Your task to perform on an android device: Show me popular games on the Play Store Image 0: 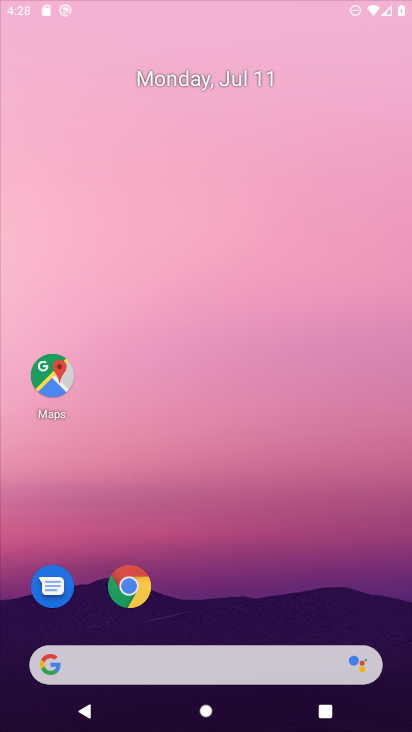
Step 0: press home button
Your task to perform on an android device: Show me popular games on the Play Store Image 1: 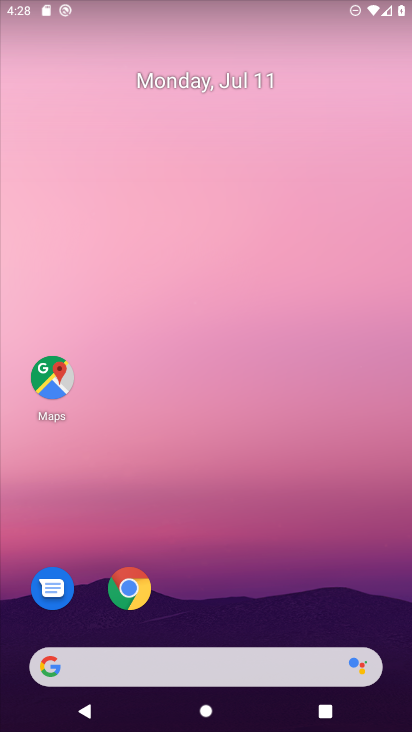
Step 1: drag from (293, 617) to (302, 111)
Your task to perform on an android device: Show me popular games on the Play Store Image 2: 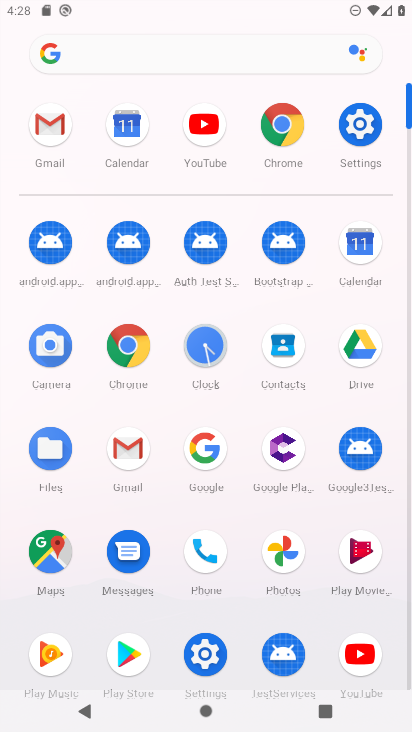
Step 2: click (125, 657)
Your task to perform on an android device: Show me popular games on the Play Store Image 3: 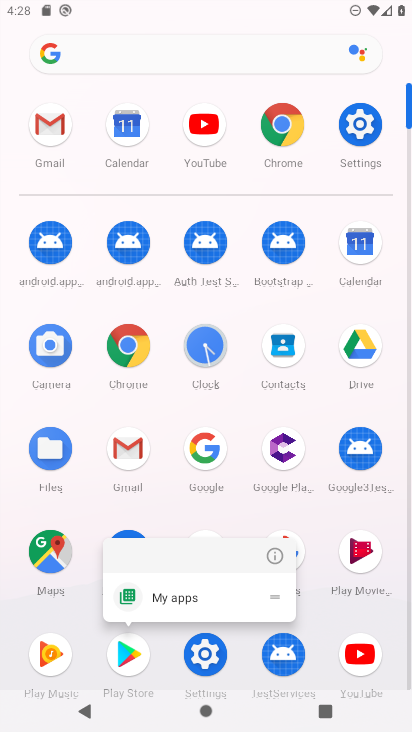
Step 3: click (126, 654)
Your task to perform on an android device: Show me popular games on the Play Store Image 4: 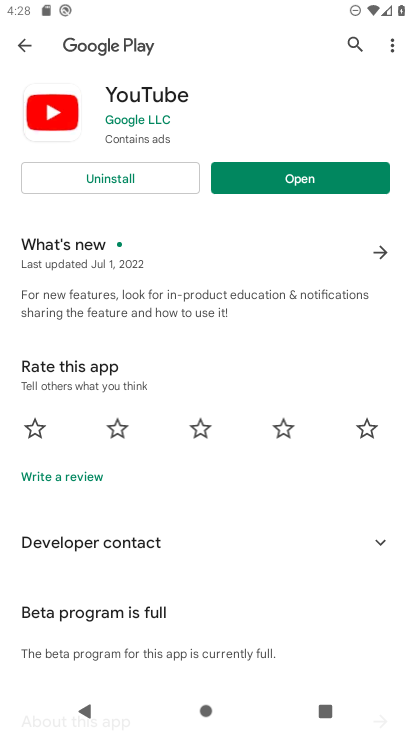
Step 4: press back button
Your task to perform on an android device: Show me popular games on the Play Store Image 5: 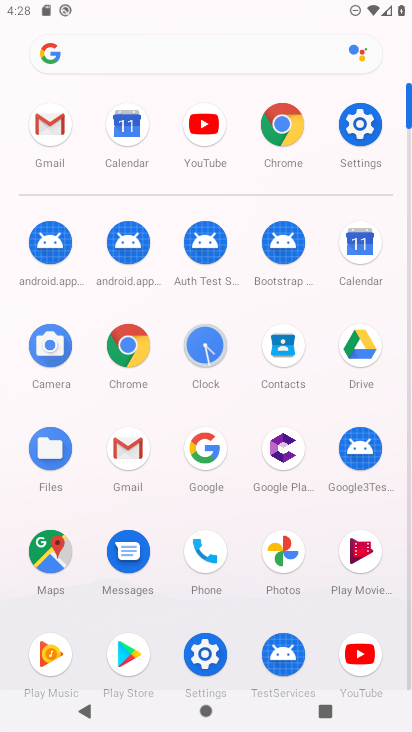
Step 5: click (118, 659)
Your task to perform on an android device: Show me popular games on the Play Store Image 6: 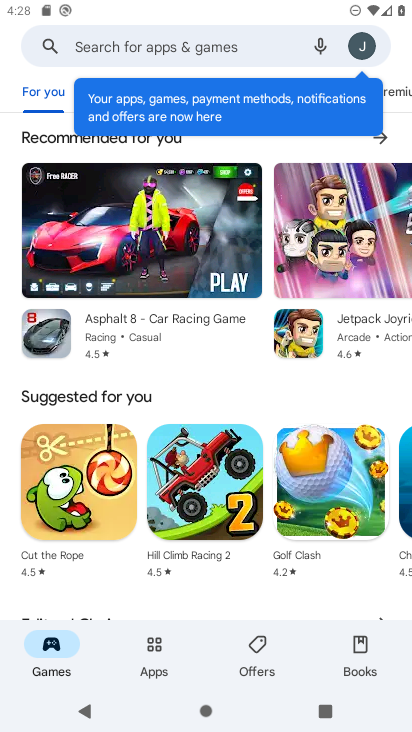
Step 6: click (55, 650)
Your task to perform on an android device: Show me popular games on the Play Store Image 7: 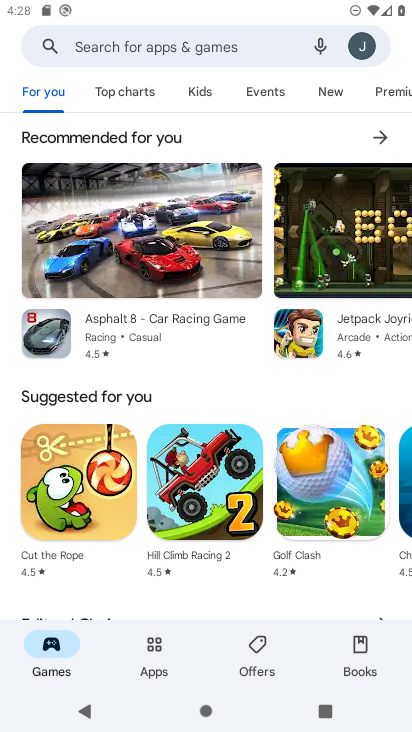
Step 7: drag from (322, 86) to (25, 101)
Your task to perform on an android device: Show me popular games on the Play Store Image 8: 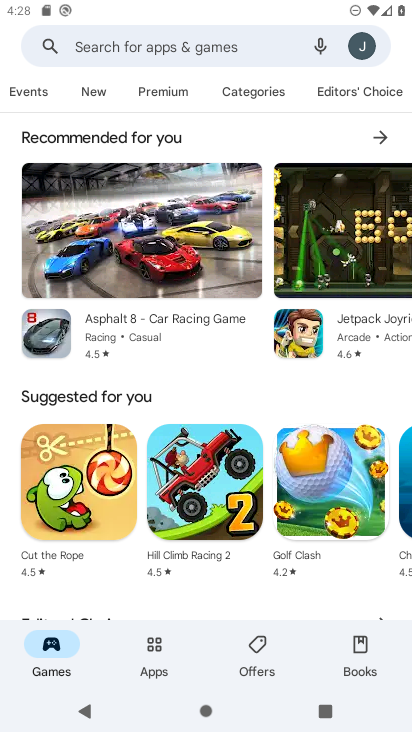
Step 8: click (232, 93)
Your task to perform on an android device: Show me popular games on the Play Store Image 9: 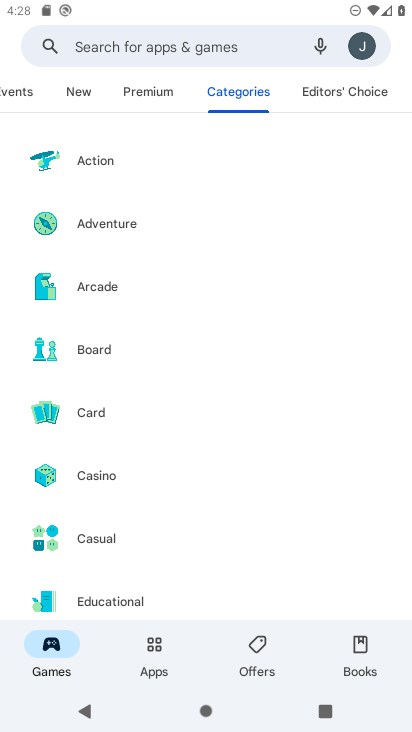
Step 9: task complete